Your task to perform on an android device: Open calendar and show me the third week of next month Image 0: 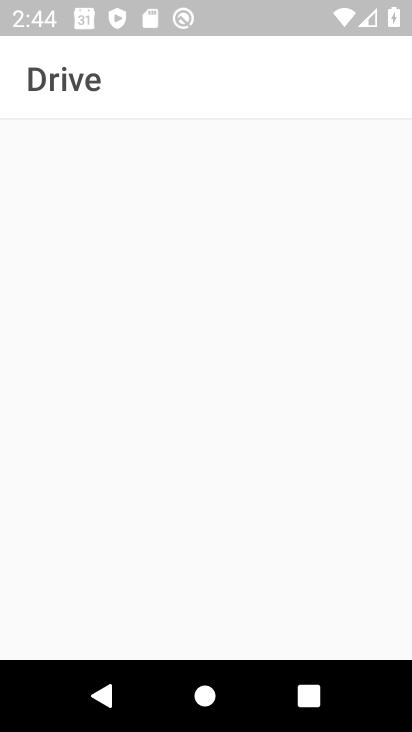
Step 0: press home button
Your task to perform on an android device: Open calendar and show me the third week of next month Image 1: 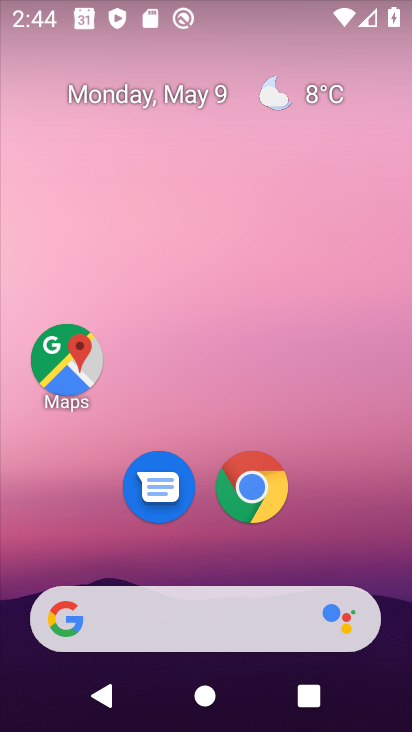
Step 1: drag from (198, 549) to (158, 16)
Your task to perform on an android device: Open calendar and show me the third week of next month Image 2: 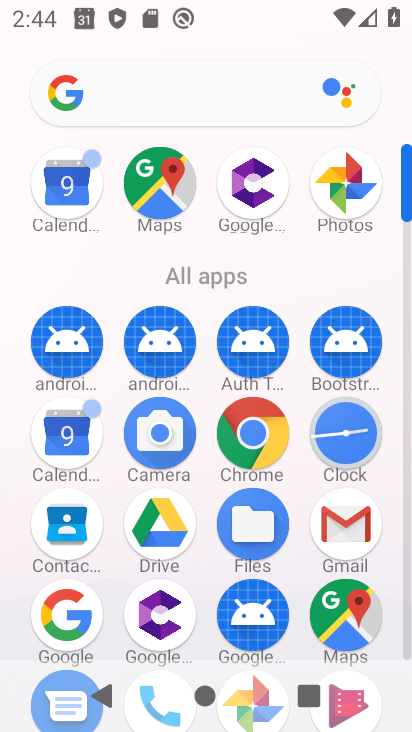
Step 2: click (61, 431)
Your task to perform on an android device: Open calendar and show me the third week of next month Image 3: 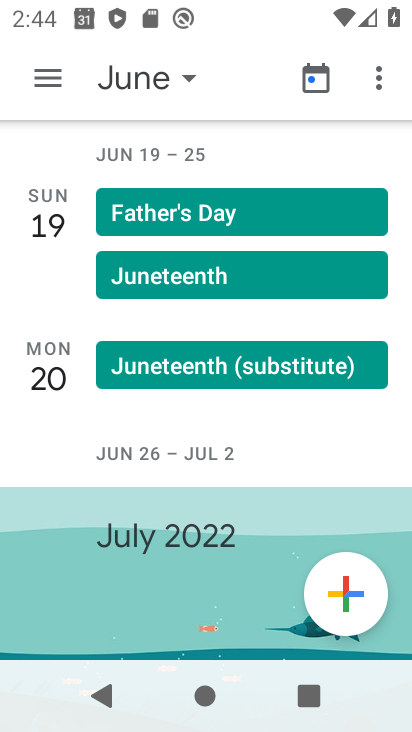
Step 3: click (37, 86)
Your task to perform on an android device: Open calendar and show me the third week of next month Image 4: 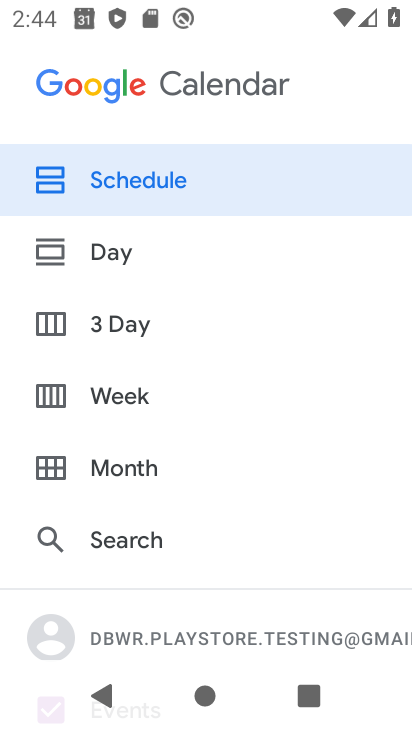
Step 4: click (102, 388)
Your task to perform on an android device: Open calendar and show me the third week of next month Image 5: 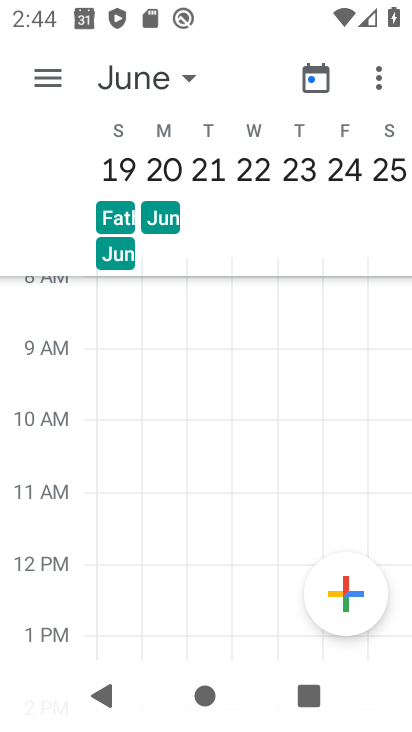
Step 5: drag from (118, 176) to (395, 167)
Your task to perform on an android device: Open calendar and show me the third week of next month Image 6: 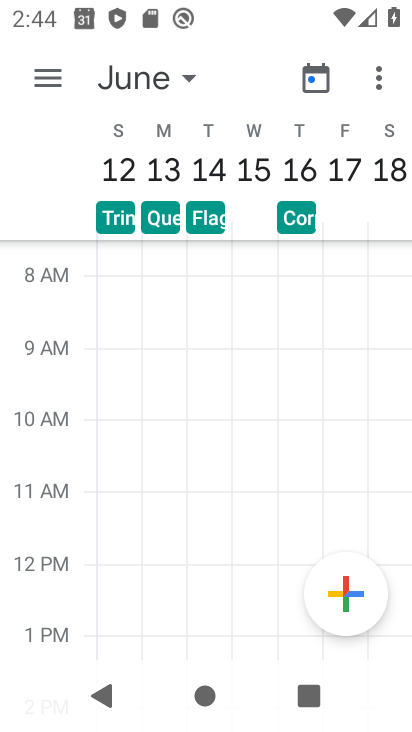
Step 6: click (116, 170)
Your task to perform on an android device: Open calendar and show me the third week of next month Image 7: 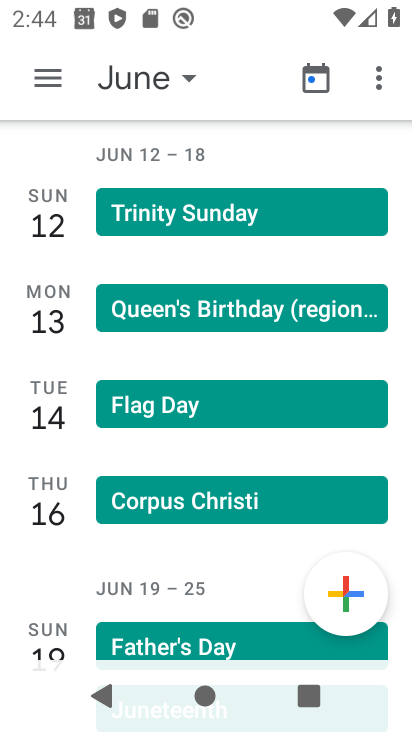
Step 7: task complete